Your task to perform on an android device: open device folders in google photos Image 0: 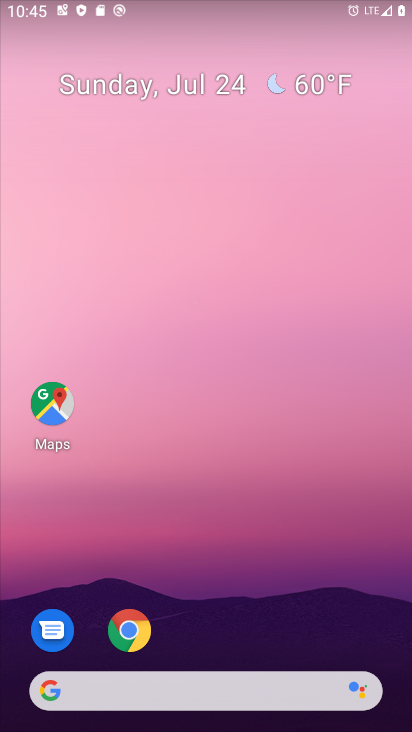
Step 0: drag from (191, 651) to (219, 13)
Your task to perform on an android device: open device folders in google photos Image 1: 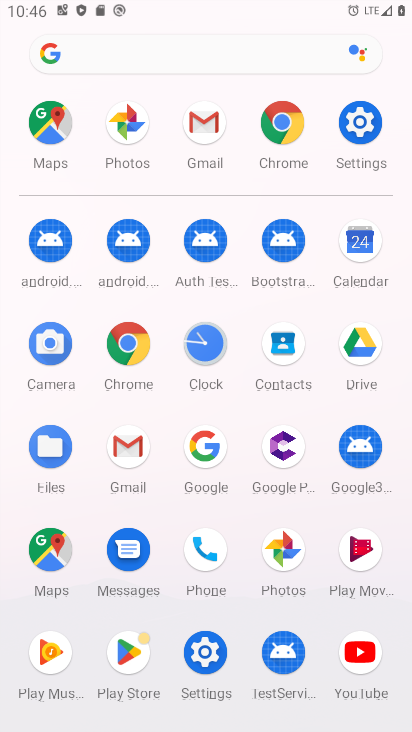
Step 1: click (283, 557)
Your task to perform on an android device: open device folders in google photos Image 2: 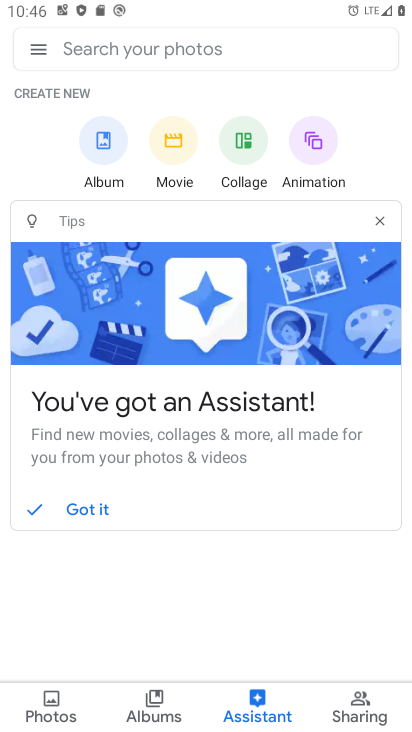
Step 2: click (38, 47)
Your task to perform on an android device: open device folders in google photos Image 3: 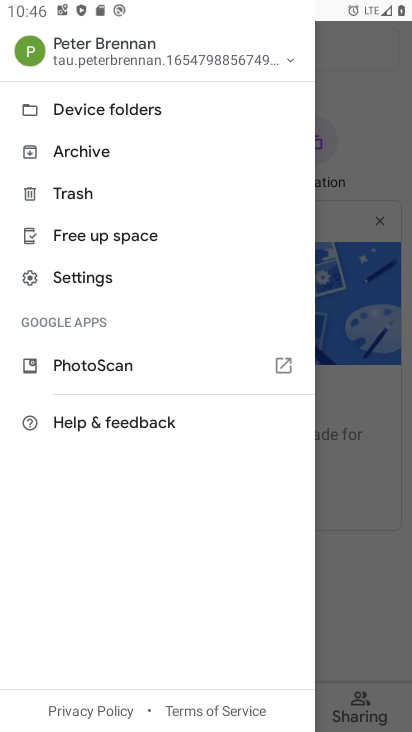
Step 3: click (118, 115)
Your task to perform on an android device: open device folders in google photos Image 4: 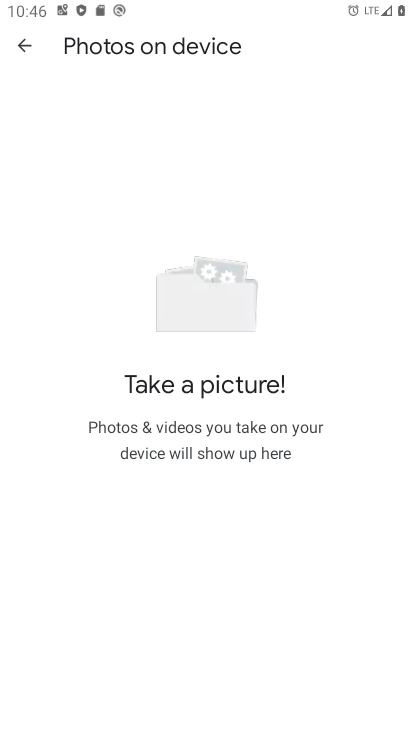
Step 4: task complete